Your task to perform on an android device: turn off notifications settings in the gmail app Image 0: 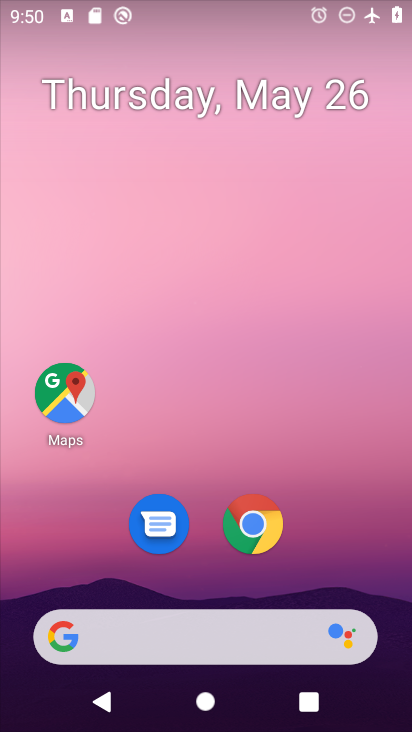
Step 0: drag from (318, 491) to (302, 37)
Your task to perform on an android device: turn off notifications settings in the gmail app Image 1: 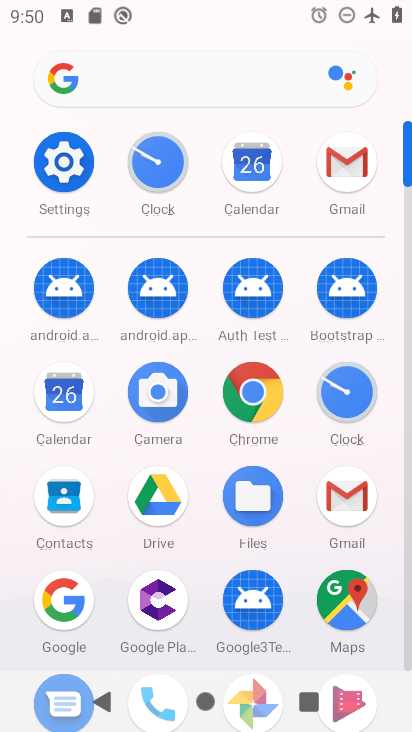
Step 1: click (344, 163)
Your task to perform on an android device: turn off notifications settings in the gmail app Image 2: 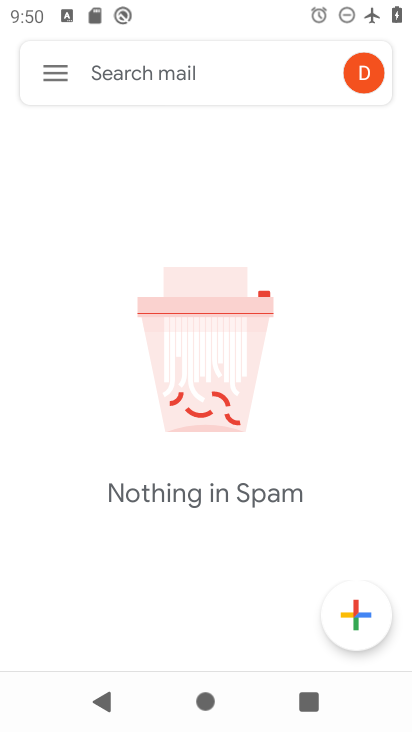
Step 2: click (59, 71)
Your task to perform on an android device: turn off notifications settings in the gmail app Image 3: 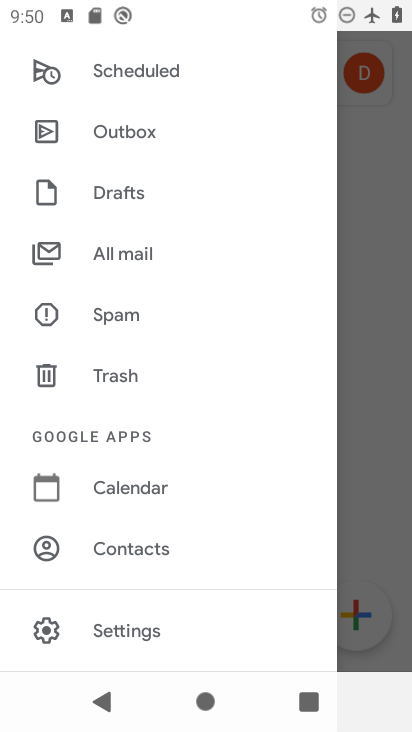
Step 3: click (165, 627)
Your task to perform on an android device: turn off notifications settings in the gmail app Image 4: 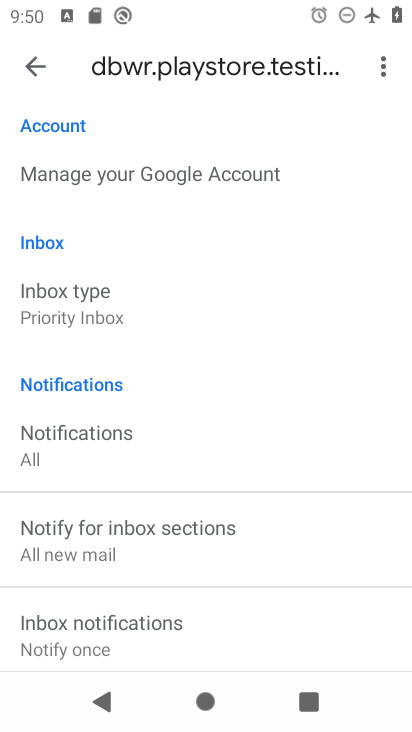
Step 4: drag from (211, 431) to (204, 127)
Your task to perform on an android device: turn off notifications settings in the gmail app Image 5: 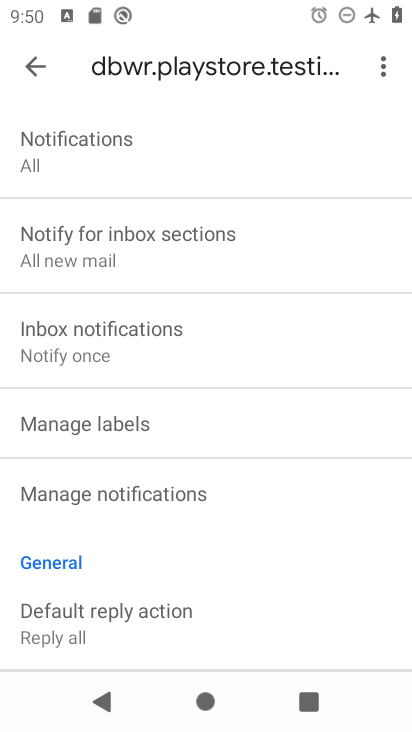
Step 5: click (209, 491)
Your task to perform on an android device: turn off notifications settings in the gmail app Image 6: 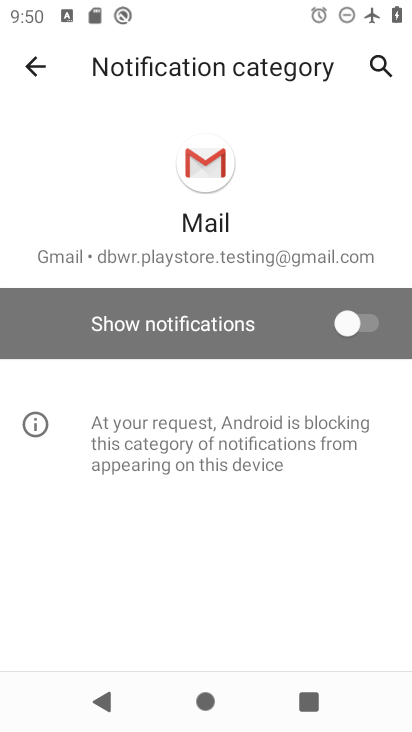
Step 6: task complete